Your task to perform on an android device: turn off javascript in the chrome app Image 0: 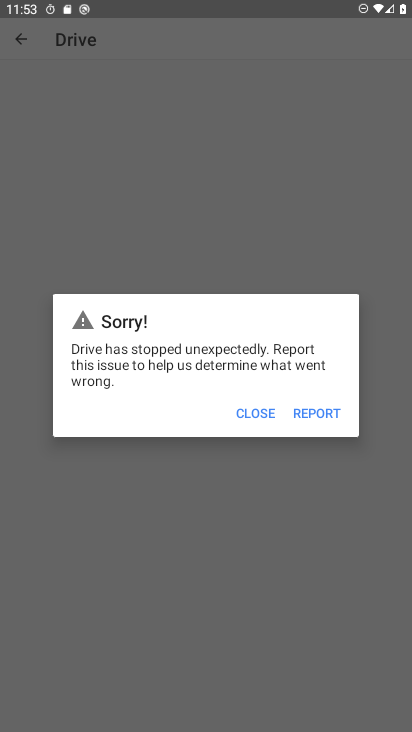
Step 0: press home button
Your task to perform on an android device: turn off javascript in the chrome app Image 1: 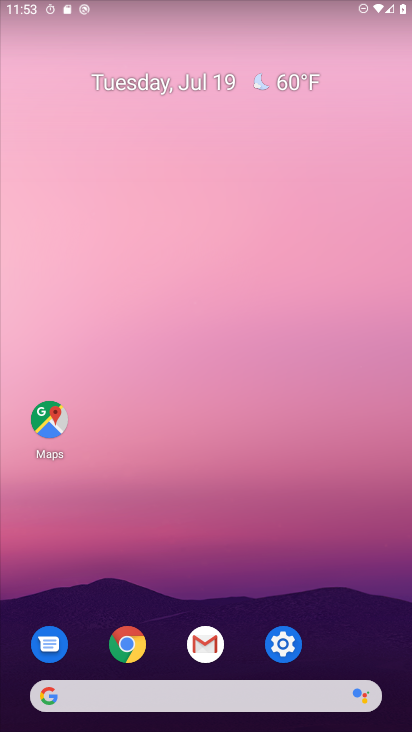
Step 1: click (124, 640)
Your task to perform on an android device: turn off javascript in the chrome app Image 2: 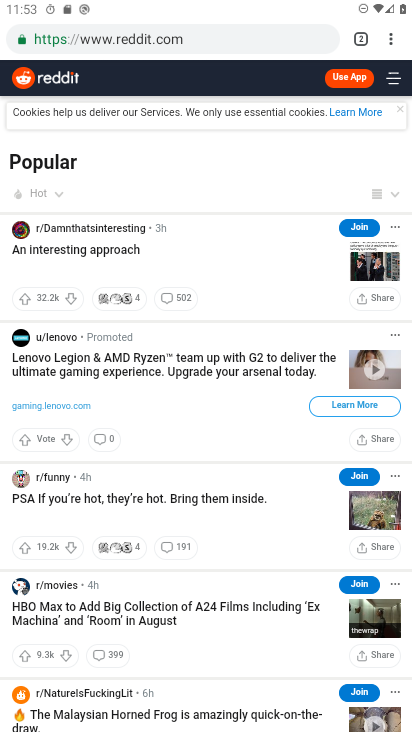
Step 2: click (387, 34)
Your task to perform on an android device: turn off javascript in the chrome app Image 3: 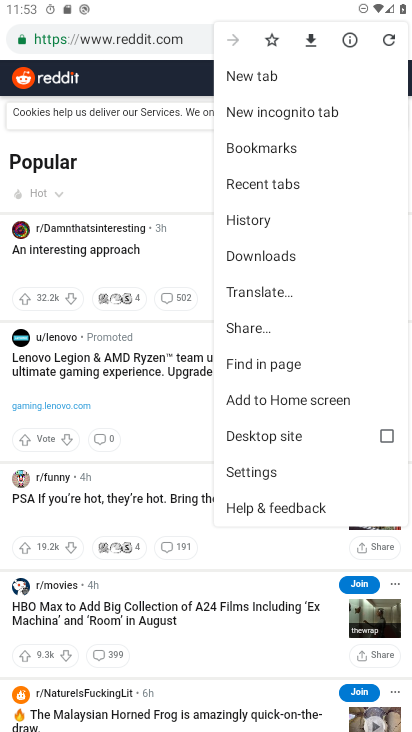
Step 3: click (253, 471)
Your task to perform on an android device: turn off javascript in the chrome app Image 4: 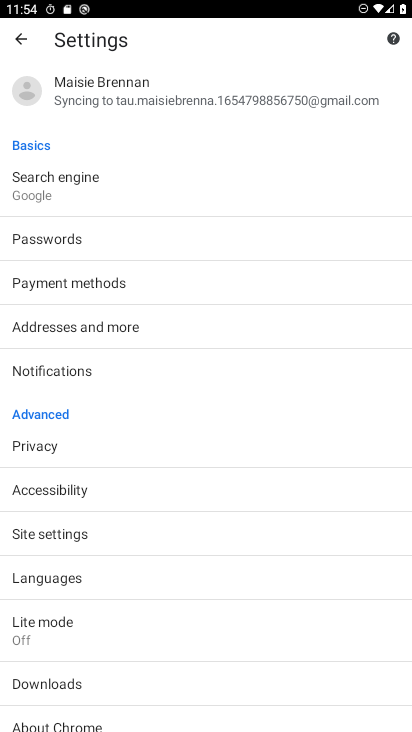
Step 4: click (66, 523)
Your task to perform on an android device: turn off javascript in the chrome app Image 5: 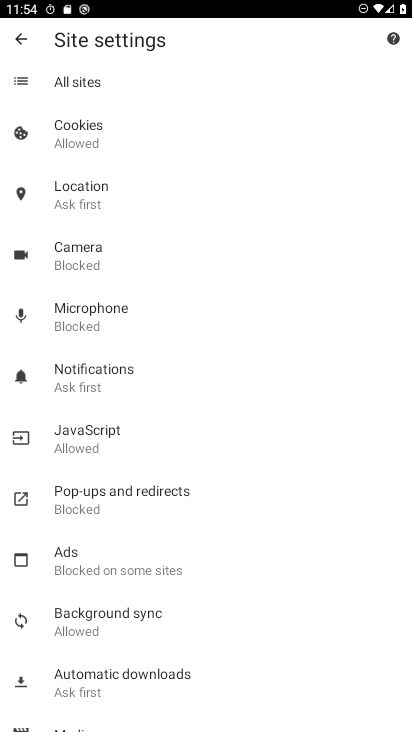
Step 5: click (88, 426)
Your task to perform on an android device: turn off javascript in the chrome app Image 6: 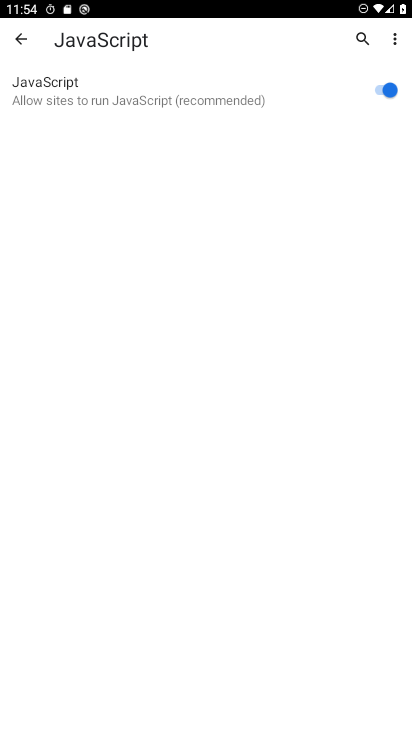
Step 6: click (385, 90)
Your task to perform on an android device: turn off javascript in the chrome app Image 7: 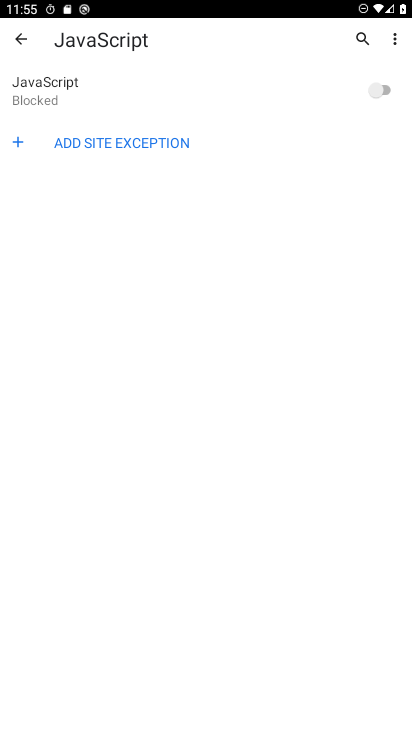
Step 7: task complete